Your task to perform on an android device: Turn off the flashlight Image 0: 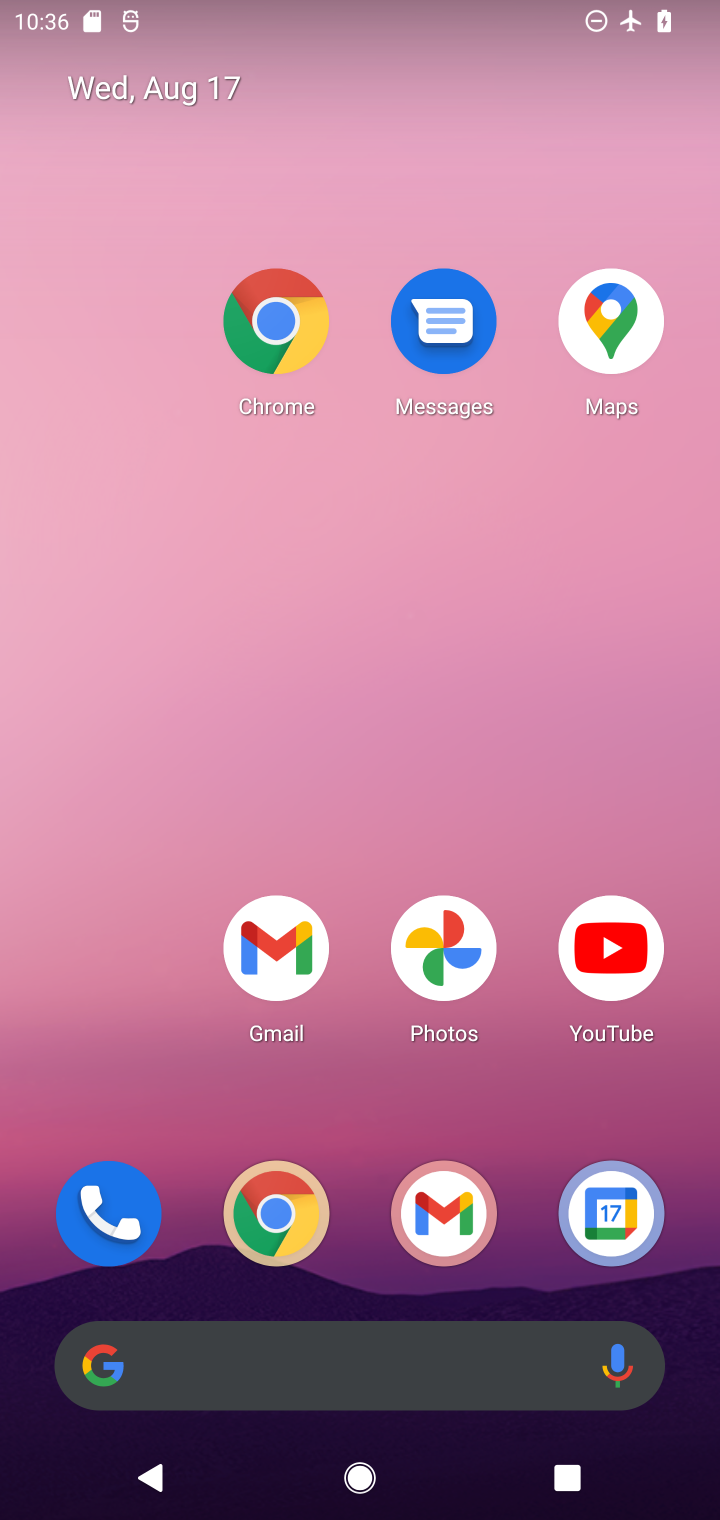
Step 0: drag from (377, 1310) to (443, 348)
Your task to perform on an android device: Turn off the flashlight Image 1: 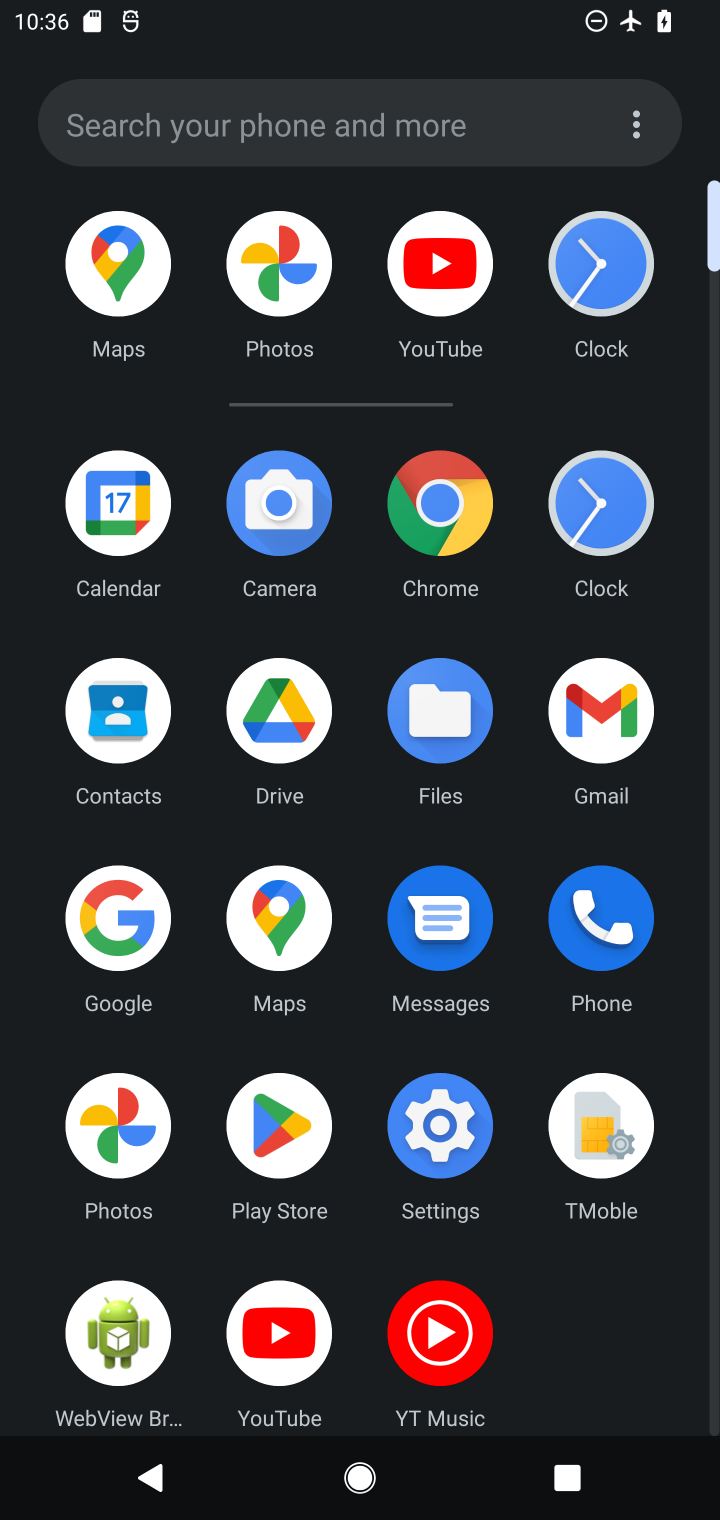
Step 1: click (463, 1185)
Your task to perform on an android device: Turn off the flashlight Image 2: 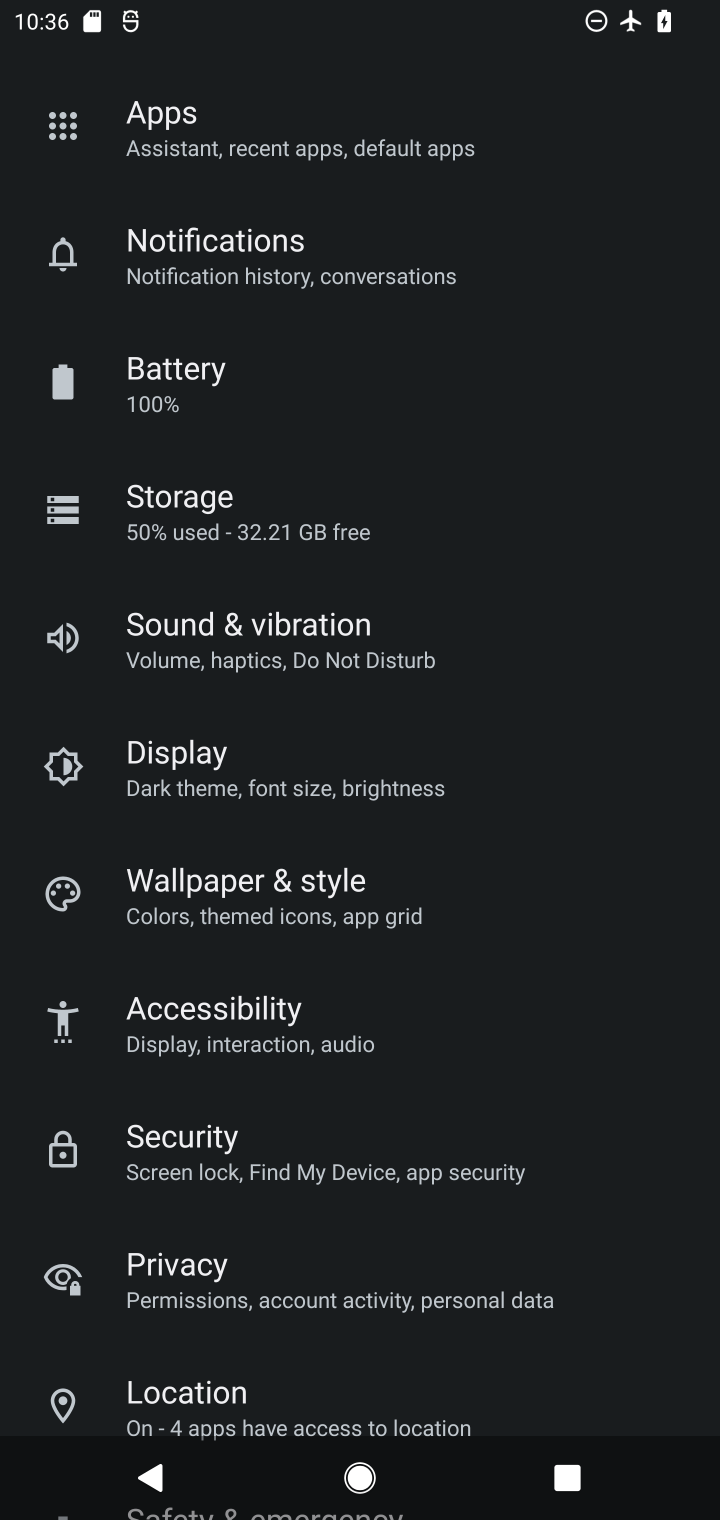
Step 2: task complete